Your task to perform on an android device: turn off smart reply in the gmail app Image 0: 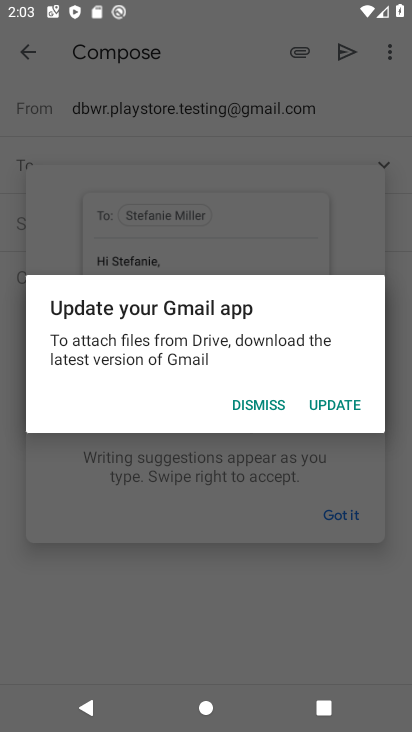
Step 0: press home button
Your task to perform on an android device: turn off smart reply in the gmail app Image 1: 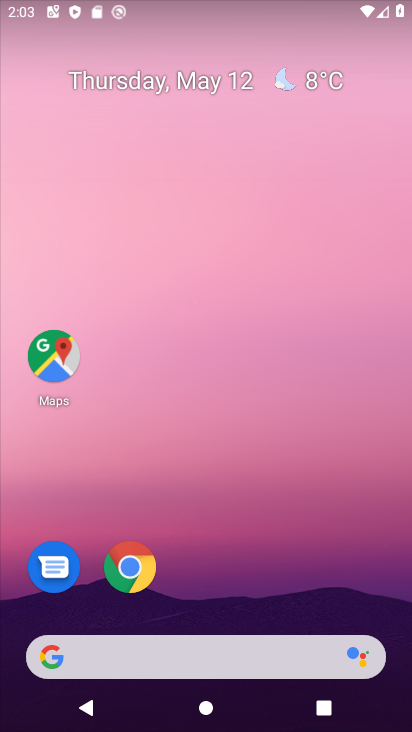
Step 1: drag from (194, 586) to (208, 122)
Your task to perform on an android device: turn off smart reply in the gmail app Image 2: 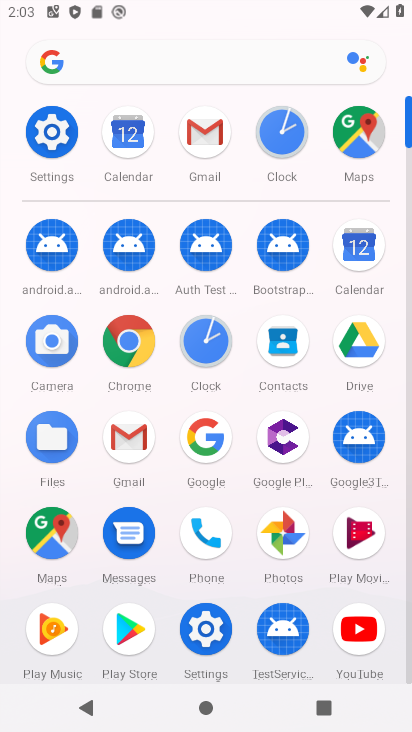
Step 2: click (136, 441)
Your task to perform on an android device: turn off smart reply in the gmail app Image 3: 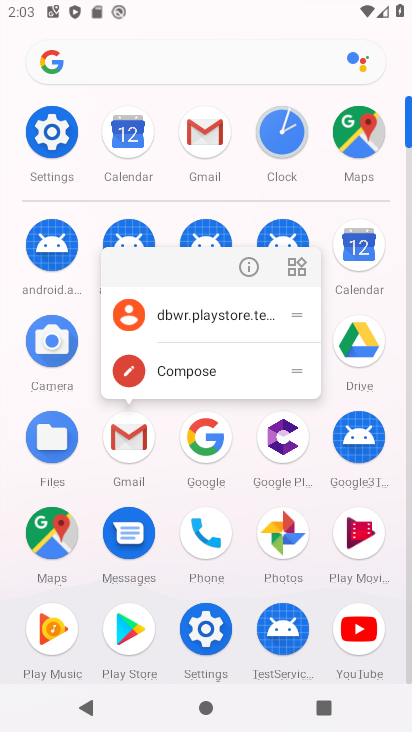
Step 3: click (132, 431)
Your task to perform on an android device: turn off smart reply in the gmail app Image 4: 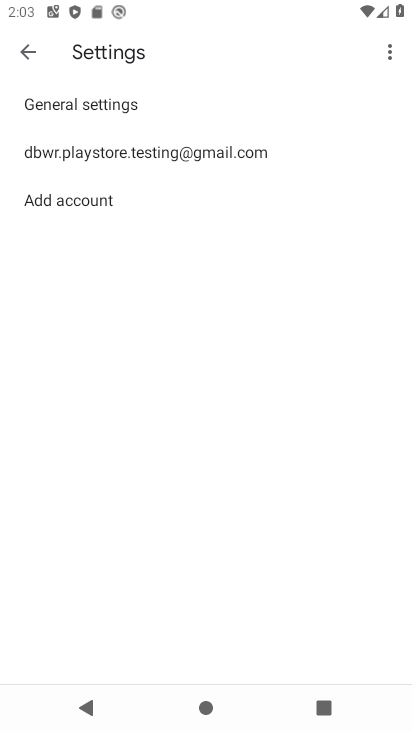
Step 4: click (150, 160)
Your task to perform on an android device: turn off smart reply in the gmail app Image 5: 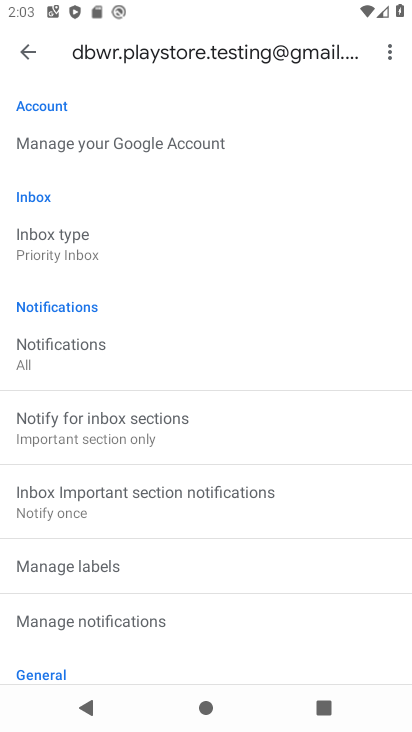
Step 5: drag from (183, 618) to (200, 197)
Your task to perform on an android device: turn off smart reply in the gmail app Image 6: 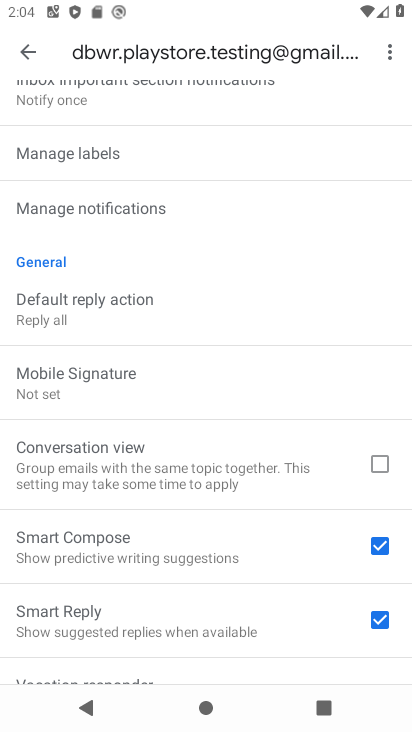
Step 6: click (376, 616)
Your task to perform on an android device: turn off smart reply in the gmail app Image 7: 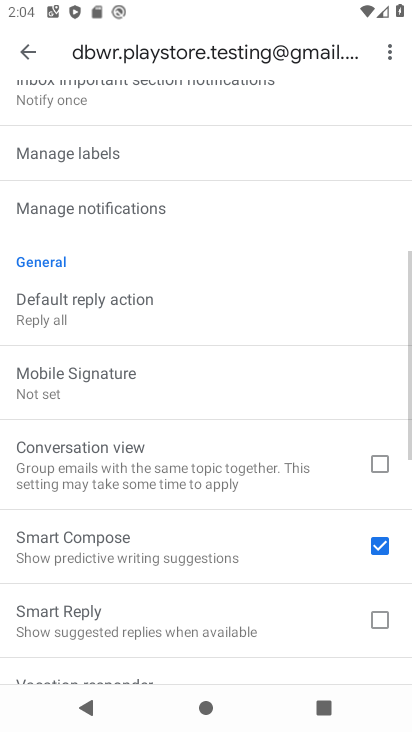
Step 7: task complete